Your task to perform on an android device: check battery use Image 0: 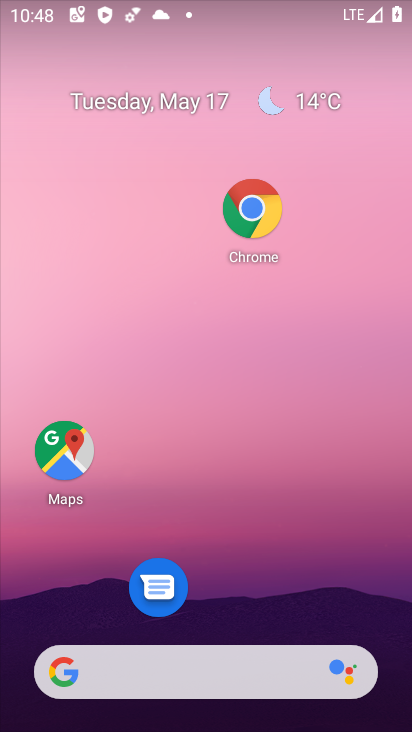
Step 0: drag from (272, 582) to (344, 15)
Your task to perform on an android device: check battery use Image 1: 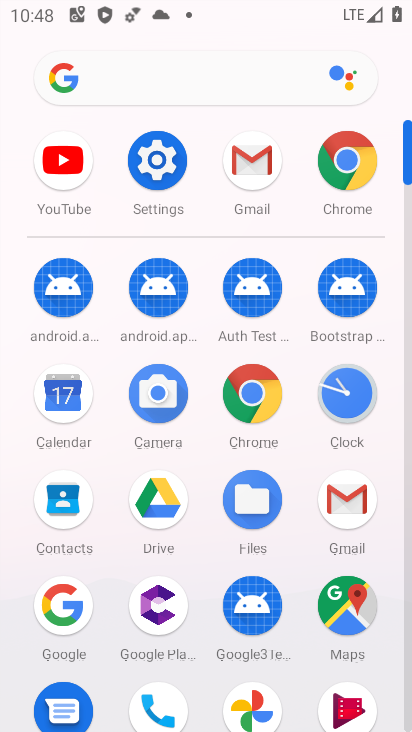
Step 1: click (161, 164)
Your task to perform on an android device: check battery use Image 2: 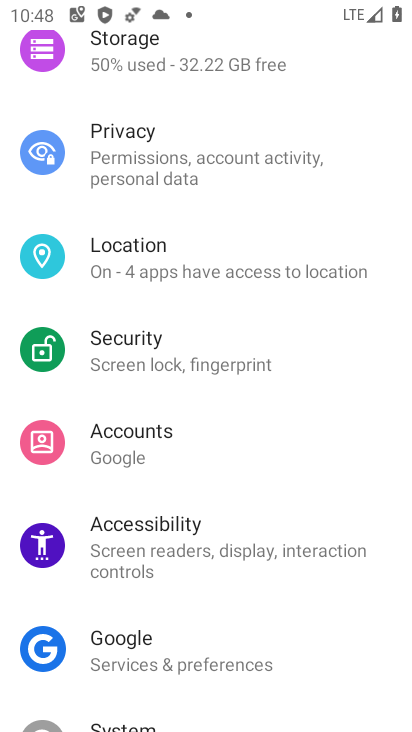
Step 2: drag from (296, 318) to (312, 620)
Your task to perform on an android device: check battery use Image 3: 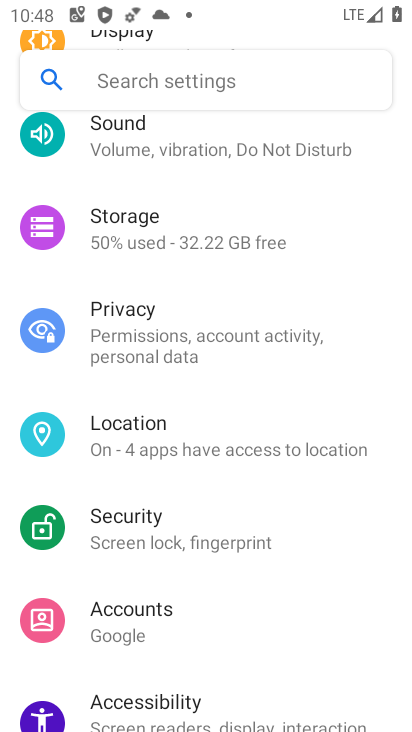
Step 3: drag from (343, 190) to (365, 630)
Your task to perform on an android device: check battery use Image 4: 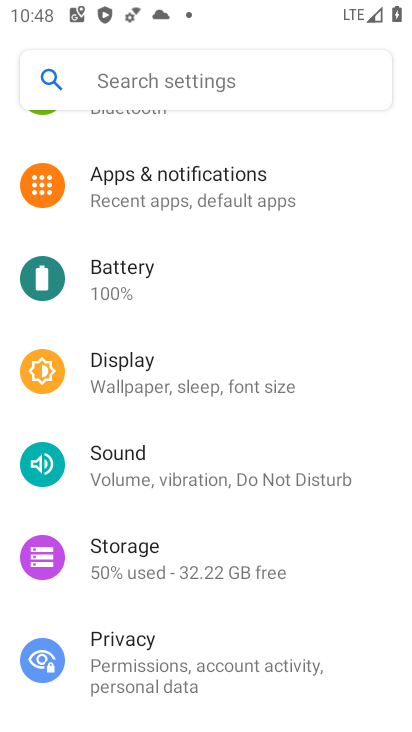
Step 4: click (173, 281)
Your task to perform on an android device: check battery use Image 5: 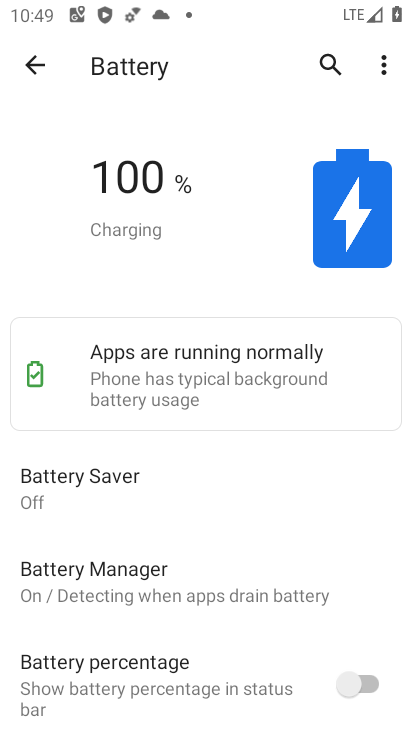
Step 5: click (380, 63)
Your task to perform on an android device: check battery use Image 6: 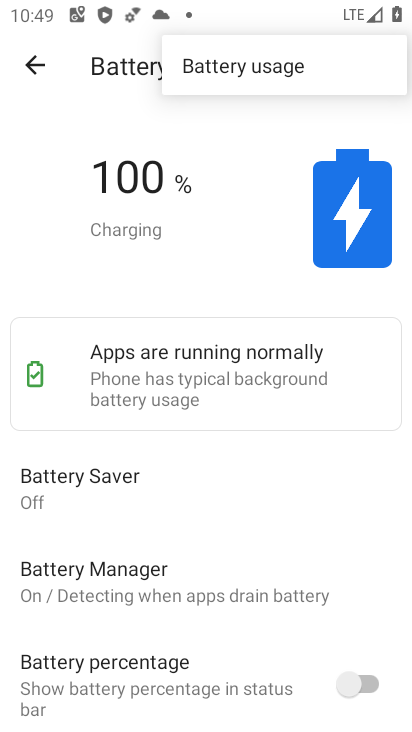
Step 6: click (320, 58)
Your task to perform on an android device: check battery use Image 7: 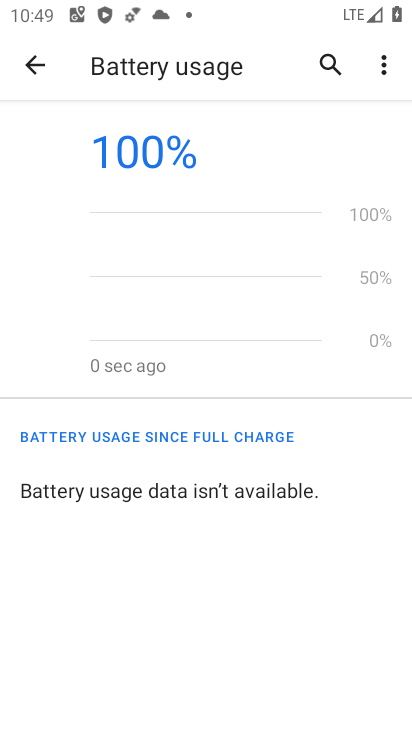
Step 7: task complete